Your task to perform on an android device: Open Youtube and go to "Your channel" Image 0: 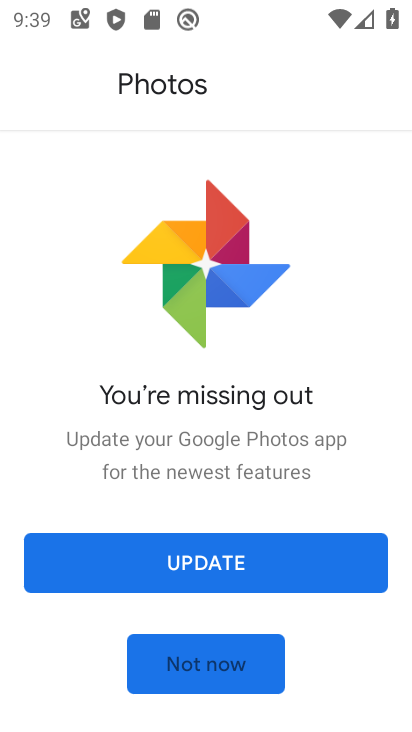
Step 0: press home button
Your task to perform on an android device: Open Youtube and go to "Your channel" Image 1: 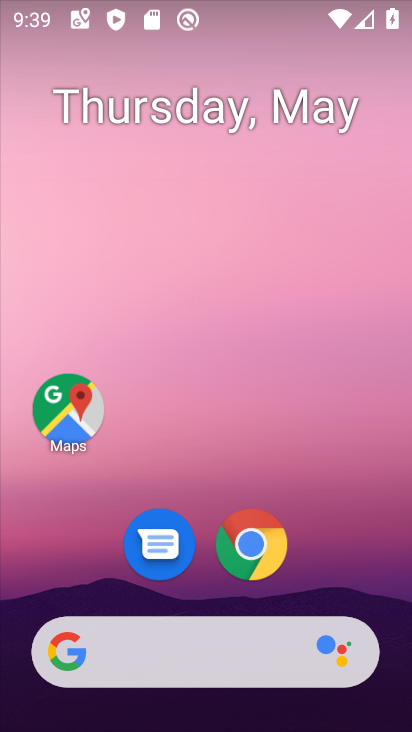
Step 1: drag from (191, 565) to (262, 205)
Your task to perform on an android device: Open Youtube and go to "Your channel" Image 2: 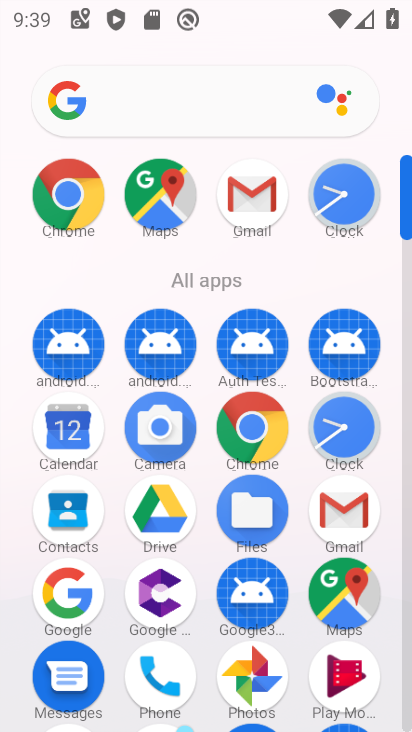
Step 2: drag from (117, 643) to (171, 264)
Your task to perform on an android device: Open Youtube and go to "Your channel" Image 3: 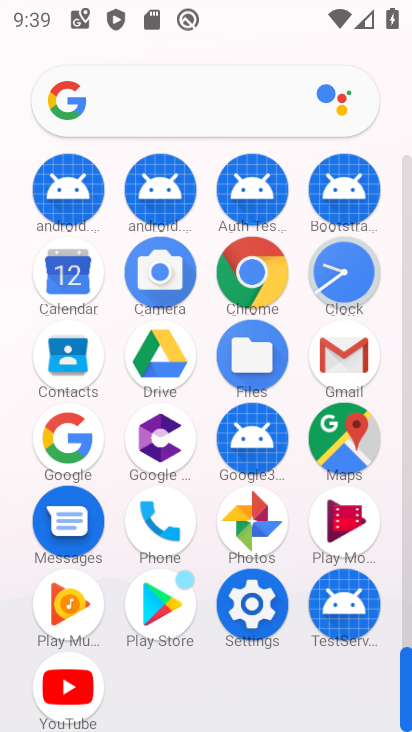
Step 3: click (65, 675)
Your task to perform on an android device: Open Youtube and go to "Your channel" Image 4: 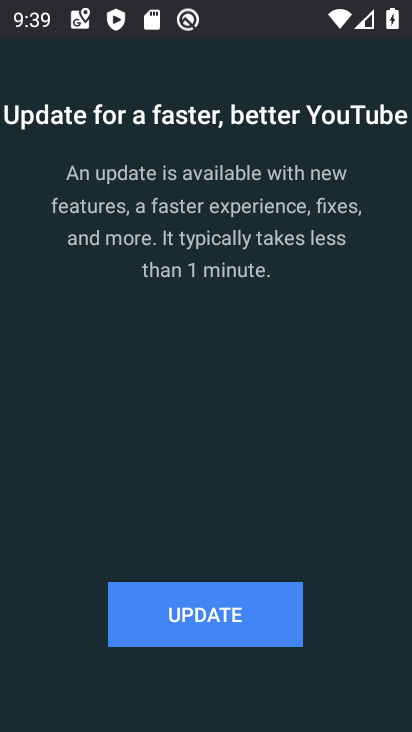
Step 4: click (230, 609)
Your task to perform on an android device: Open Youtube and go to "Your channel" Image 5: 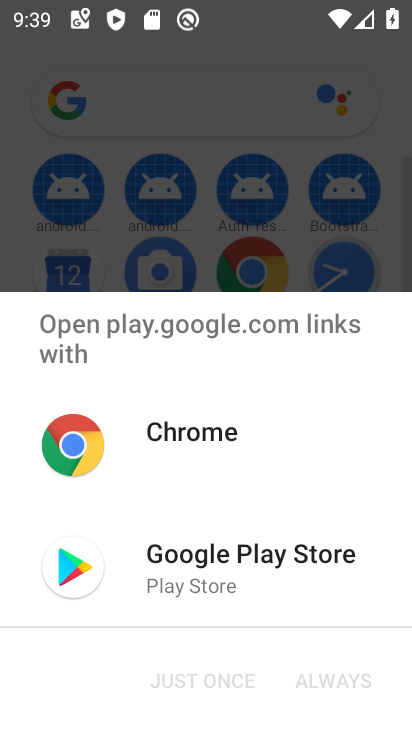
Step 5: click (236, 560)
Your task to perform on an android device: Open Youtube and go to "Your channel" Image 6: 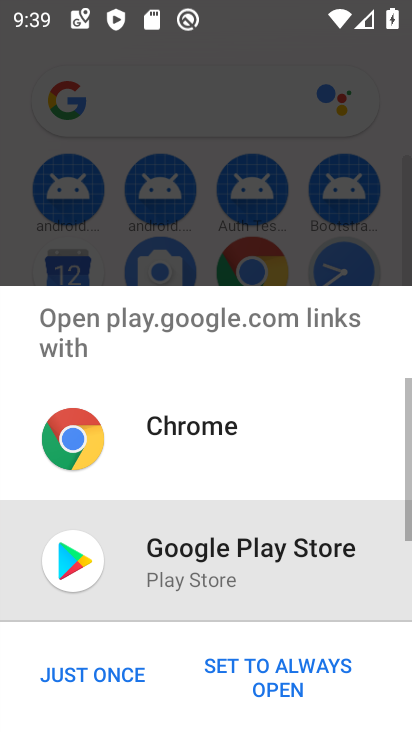
Step 6: click (122, 672)
Your task to perform on an android device: Open Youtube and go to "Your channel" Image 7: 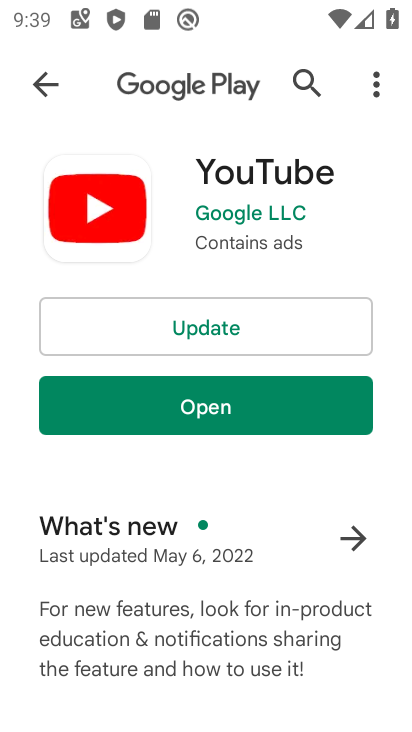
Step 7: click (237, 325)
Your task to perform on an android device: Open Youtube and go to "Your channel" Image 8: 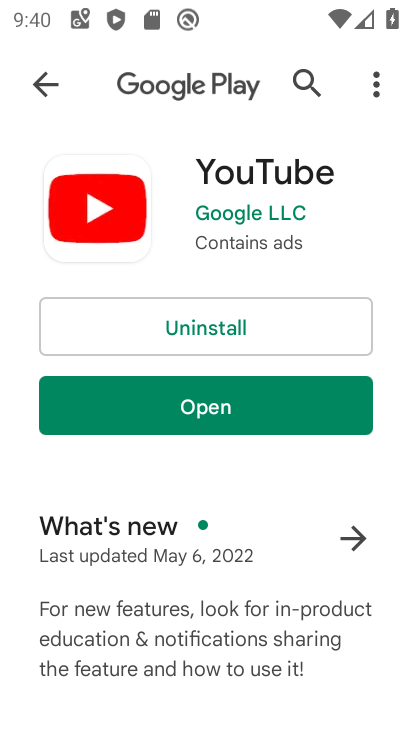
Step 8: click (186, 400)
Your task to perform on an android device: Open Youtube and go to "Your channel" Image 9: 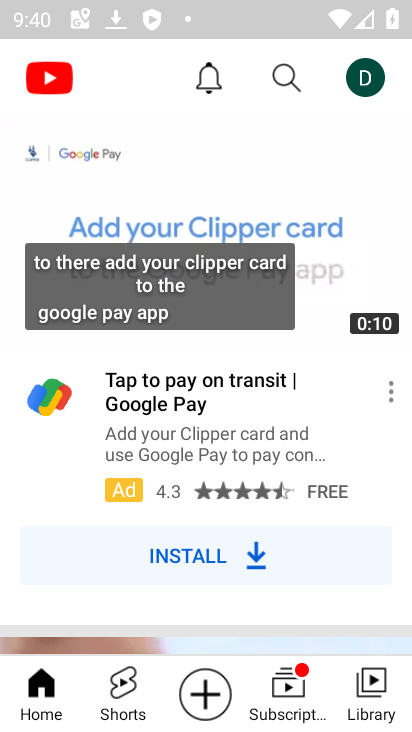
Step 9: click (365, 77)
Your task to perform on an android device: Open Youtube and go to "Your channel" Image 10: 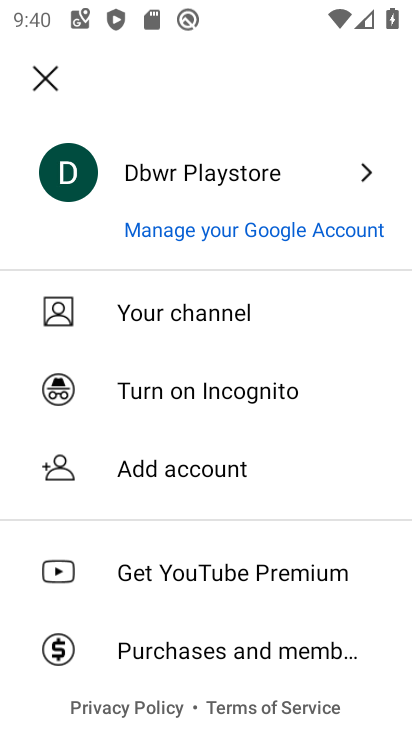
Step 10: click (249, 303)
Your task to perform on an android device: Open Youtube and go to "Your channel" Image 11: 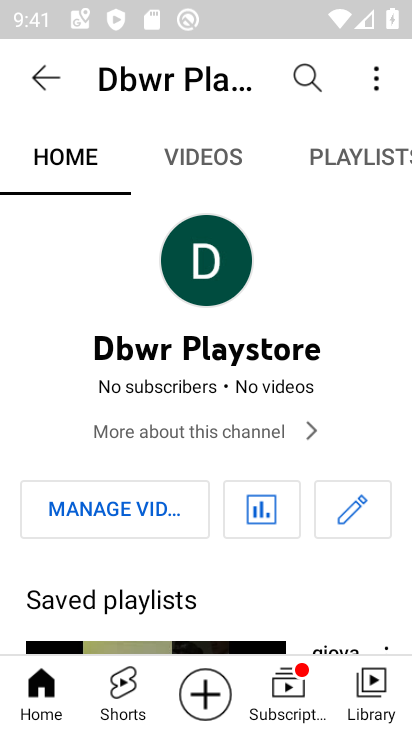
Step 11: task complete